Your task to perform on an android device: make emails show in primary in the gmail app Image 0: 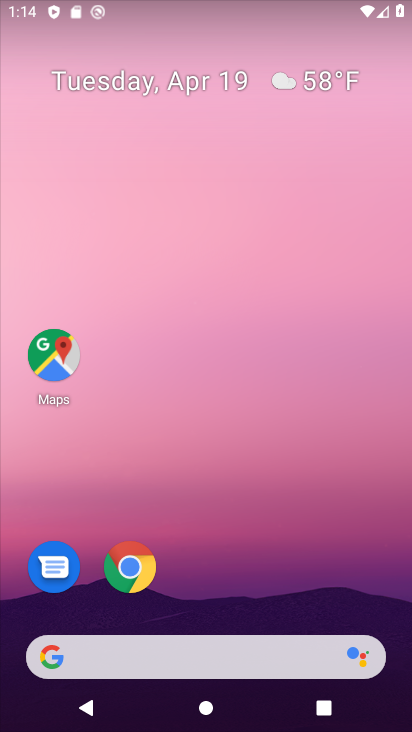
Step 0: drag from (391, 629) to (400, 50)
Your task to perform on an android device: make emails show in primary in the gmail app Image 1: 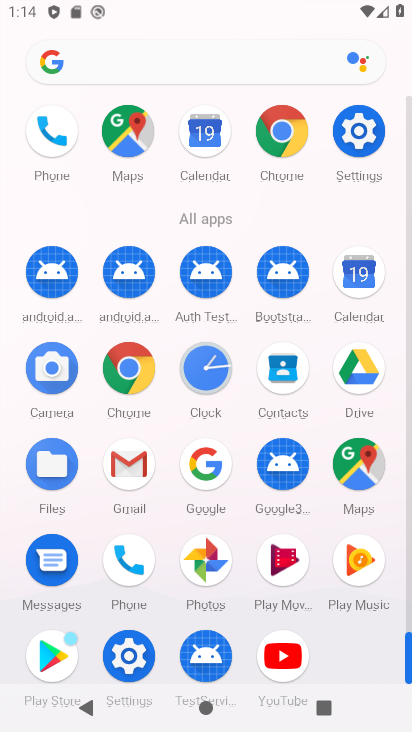
Step 1: click (124, 463)
Your task to perform on an android device: make emails show in primary in the gmail app Image 2: 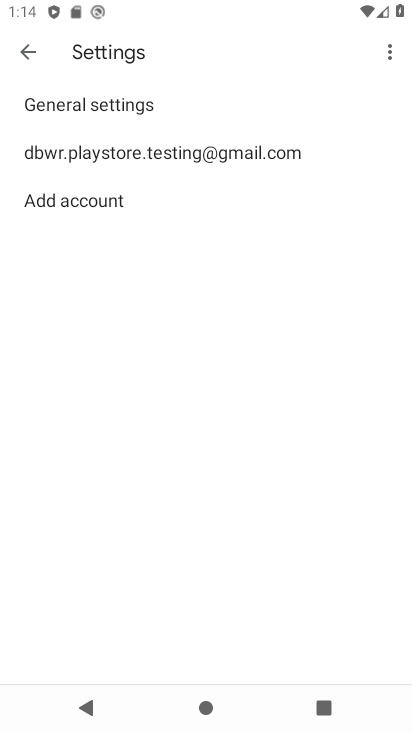
Step 2: click (126, 157)
Your task to perform on an android device: make emails show in primary in the gmail app Image 3: 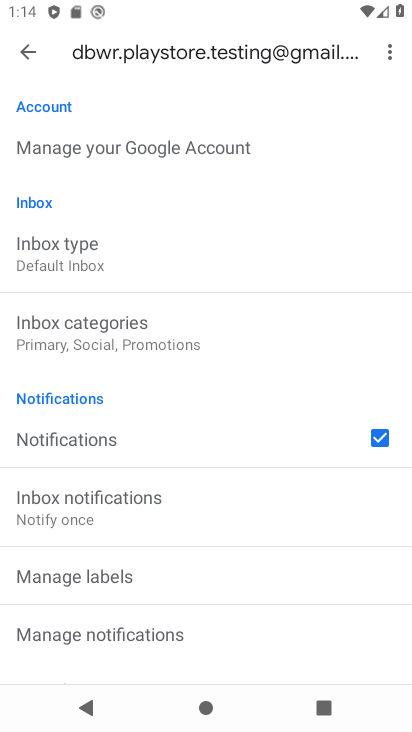
Step 3: click (64, 267)
Your task to perform on an android device: make emails show in primary in the gmail app Image 4: 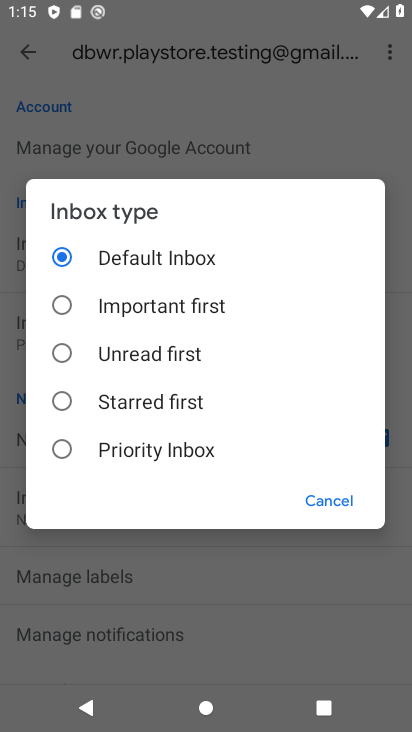
Step 4: click (331, 498)
Your task to perform on an android device: make emails show in primary in the gmail app Image 5: 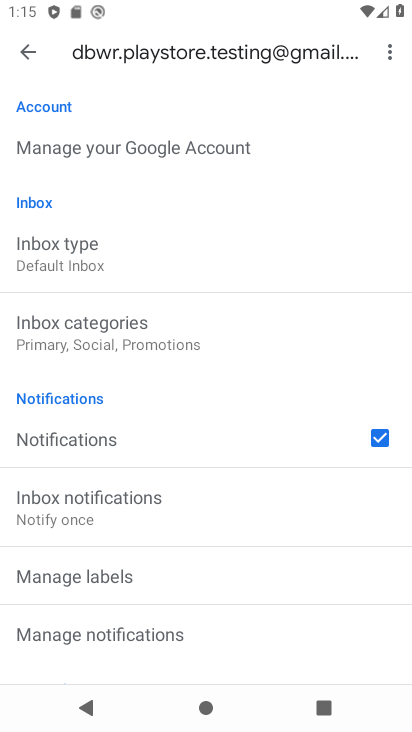
Step 5: click (82, 326)
Your task to perform on an android device: make emails show in primary in the gmail app Image 6: 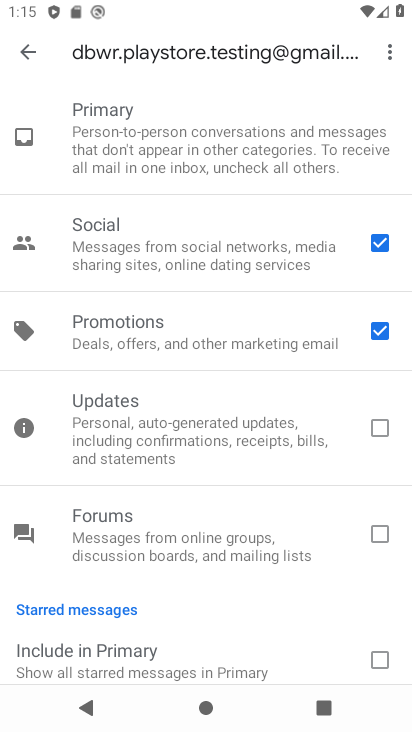
Step 6: click (380, 327)
Your task to perform on an android device: make emails show in primary in the gmail app Image 7: 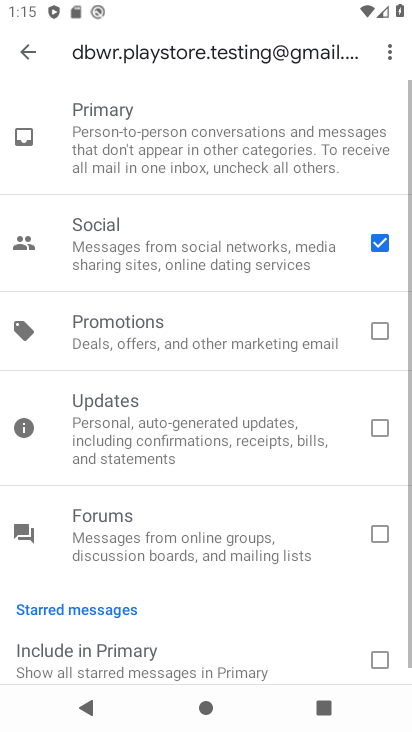
Step 7: click (378, 241)
Your task to perform on an android device: make emails show in primary in the gmail app Image 8: 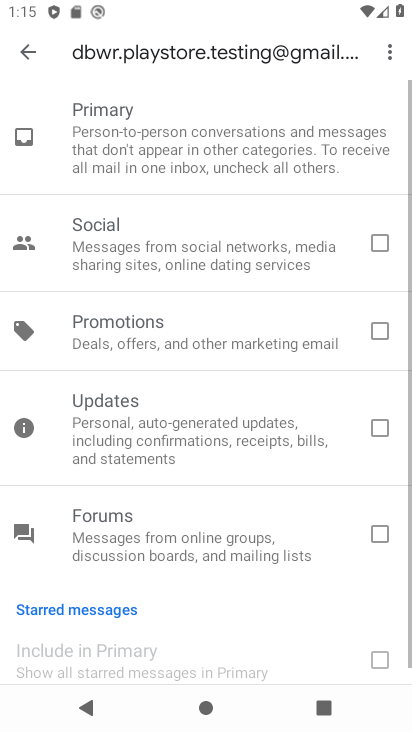
Step 8: task complete